Your task to perform on an android device: Go to Reddit.com Image 0: 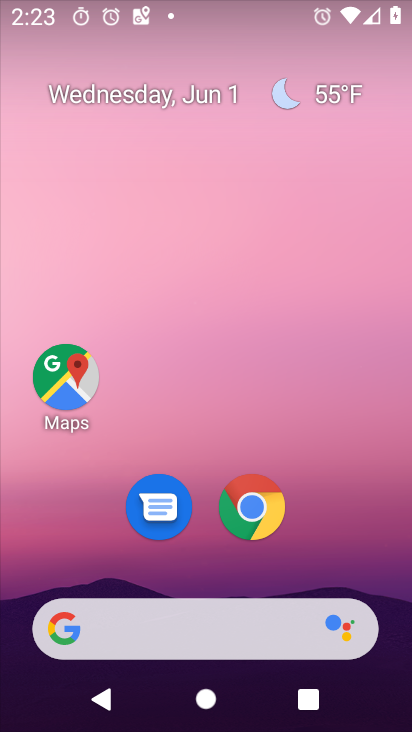
Step 0: click (260, 503)
Your task to perform on an android device: Go to Reddit.com Image 1: 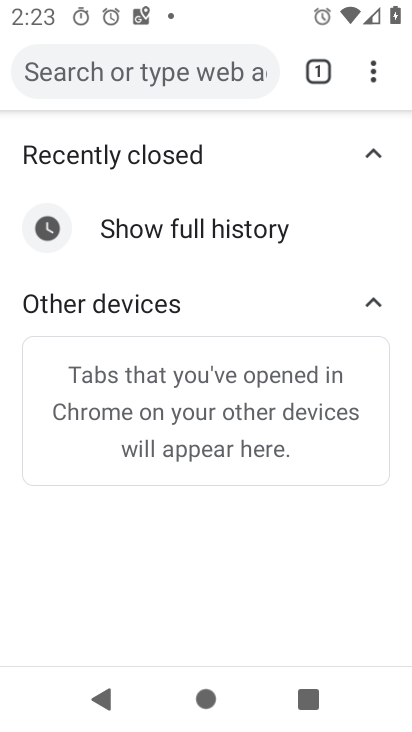
Step 1: click (92, 76)
Your task to perform on an android device: Go to Reddit.com Image 2: 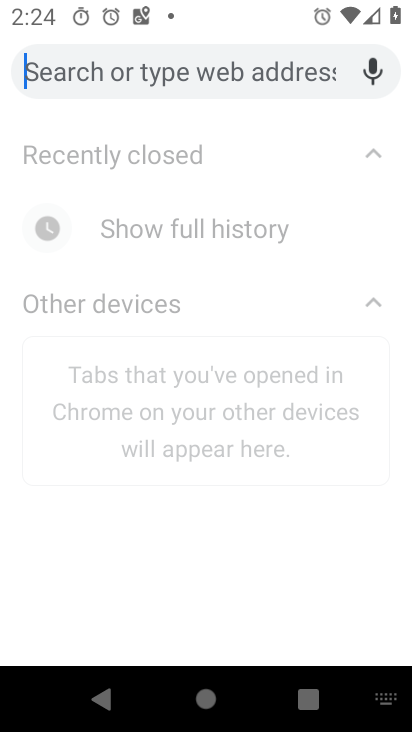
Step 2: type "reddit.com"
Your task to perform on an android device: Go to Reddit.com Image 3: 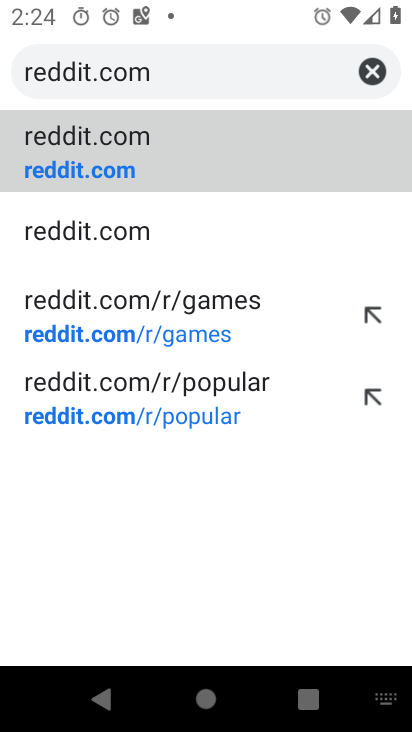
Step 3: click (80, 175)
Your task to perform on an android device: Go to Reddit.com Image 4: 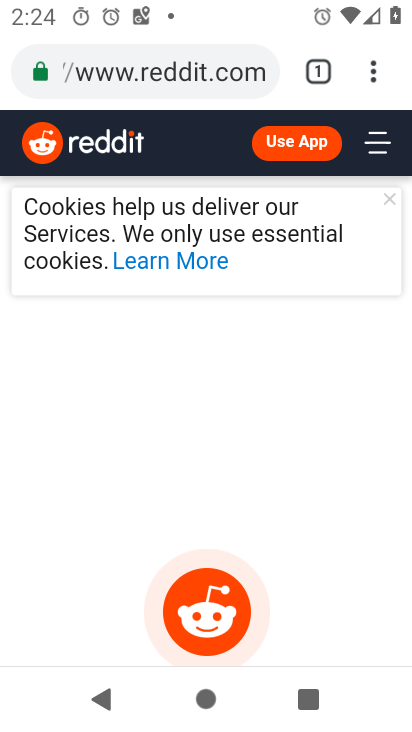
Step 4: task complete